Your task to perform on an android device: toggle notification dots Image 0: 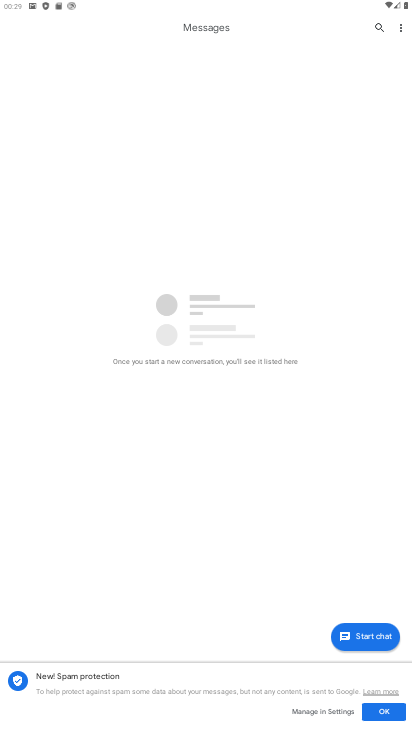
Step 0: press home button
Your task to perform on an android device: toggle notification dots Image 1: 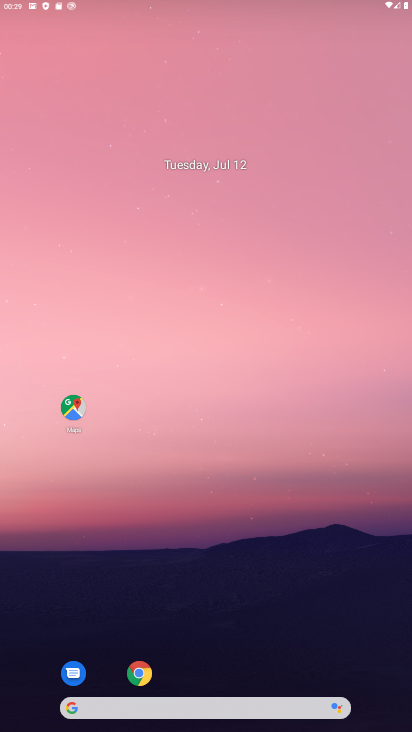
Step 1: drag from (293, 579) to (292, 21)
Your task to perform on an android device: toggle notification dots Image 2: 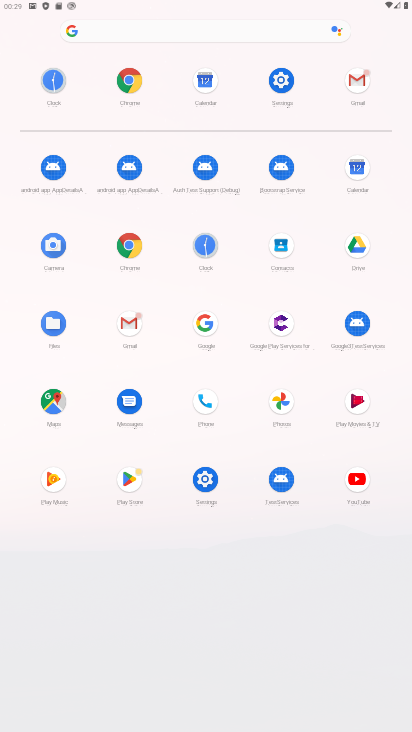
Step 2: click (273, 81)
Your task to perform on an android device: toggle notification dots Image 3: 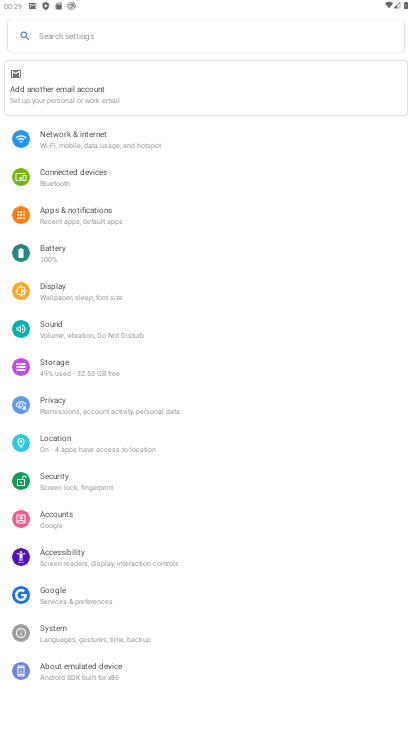
Step 3: click (76, 213)
Your task to perform on an android device: toggle notification dots Image 4: 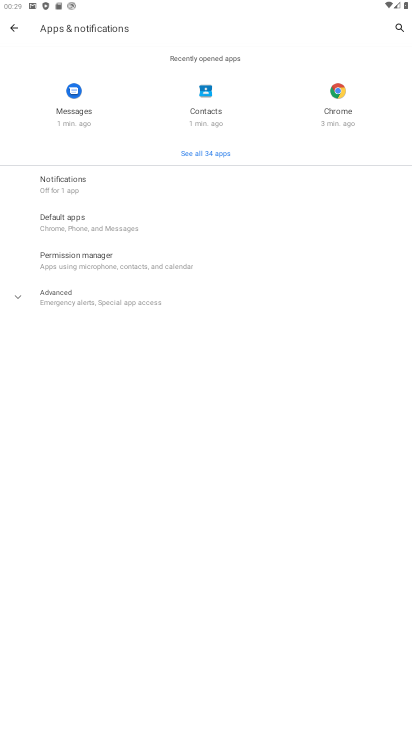
Step 4: click (17, 295)
Your task to perform on an android device: toggle notification dots Image 5: 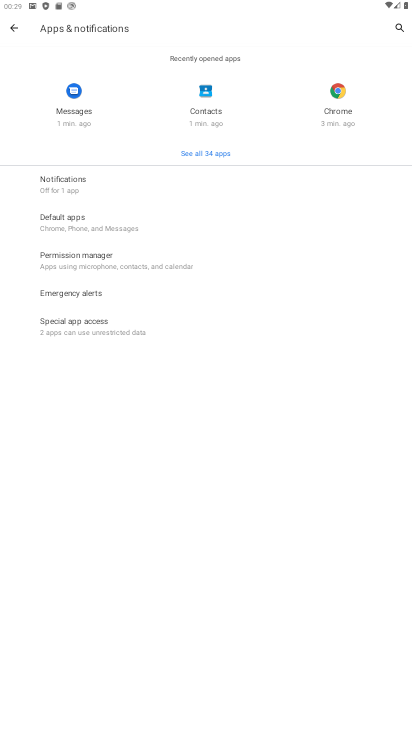
Step 5: click (57, 180)
Your task to perform on an android device: toggle notification dots Image 6: 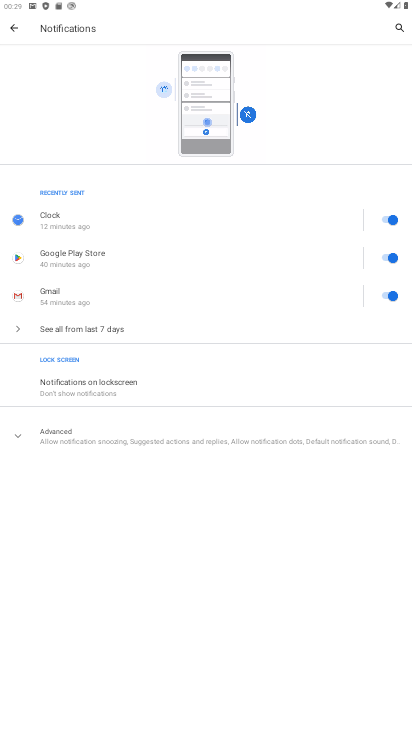
Step 6: click (18, 431)
Your task to perform on an android device: toggle notification dots Image 7: 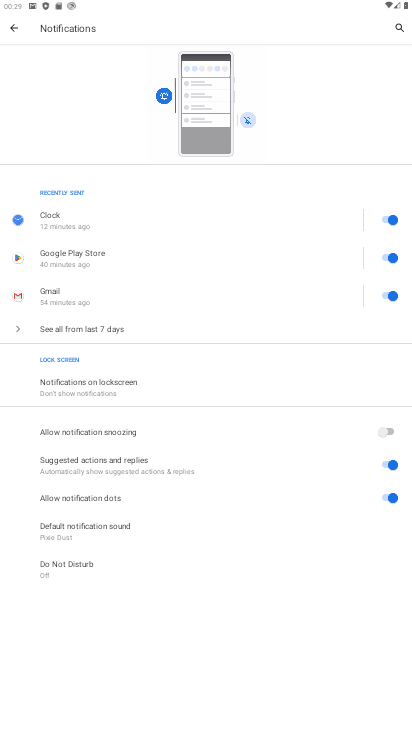
Step 7: click (390, 498)
Your task to perform on an android device: toggle notification dots Image 8: 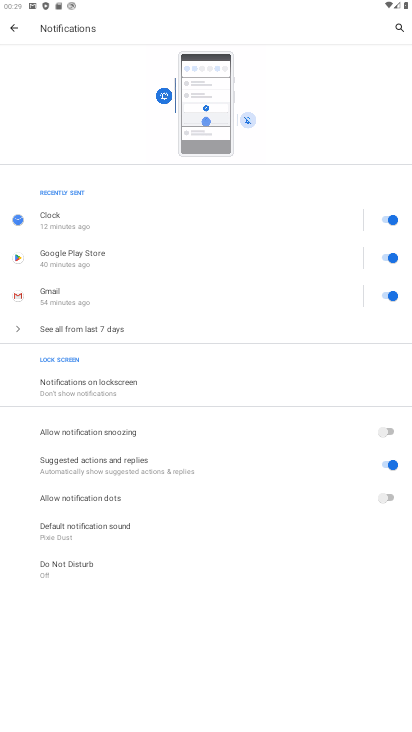
Step 8: task complete